Your task to perform on an android device: Search for Mexican restaurants on Maps Image 0: 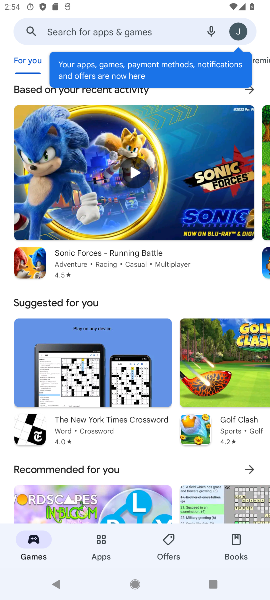
Step 0: press home button
Your task to perform on an android device: Search for Mexican restaurants on Maps Image 1: 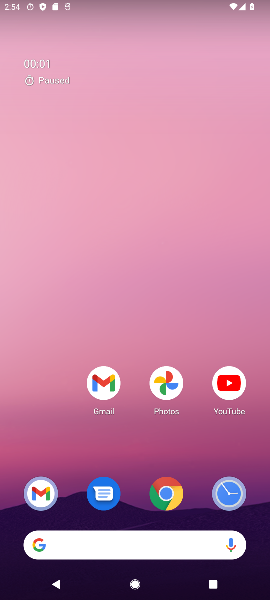
Step 1: drag from (41, 558) to (118, 0)
Your task to perform on an android device: Search for Mexican restaurants on Maps Image 2: 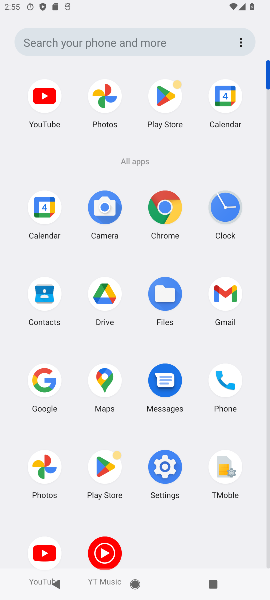
Step 2: click (101, 374)
Your task to perform on an android device: Search for Mexican restaurants on Maps Image 3: 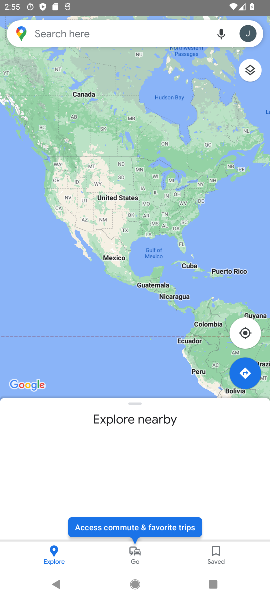
Step 3: click (100, 42)
Your task to perform on an android device: Search for Mexican restaurants on Maps Image 4: 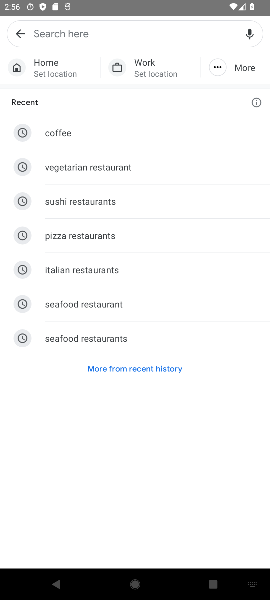
Step 4: type "Mexican restaurants"
Your task to perform on an android device: Search for Mexican restaurants on Maps Image 5: 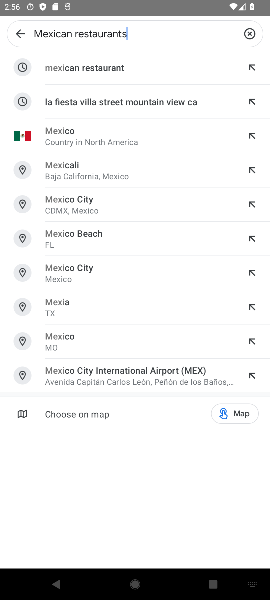
Step 5: type ""
Your task to perform on an android device: Search for Mexican restaurants on Maps Image 6: 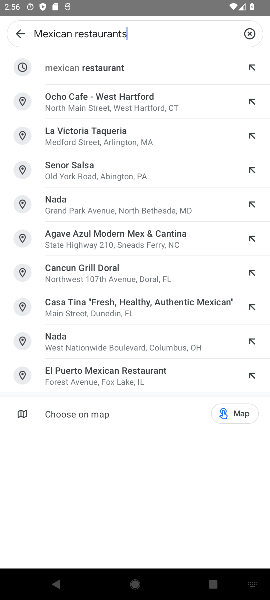
Step 6: type ""
Your task to perform on an android device: Search for Mexican restaurants on Maps Image 7: 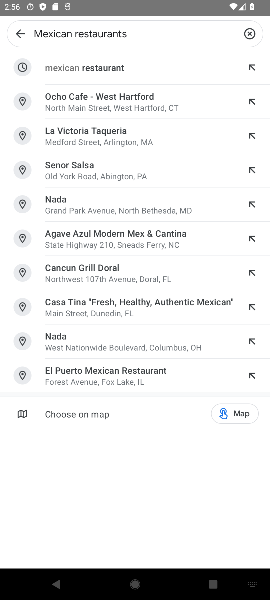
Step 7: type ""
Your task to perform on an android device: Search for Mexican restaurants on Maps Image 8: 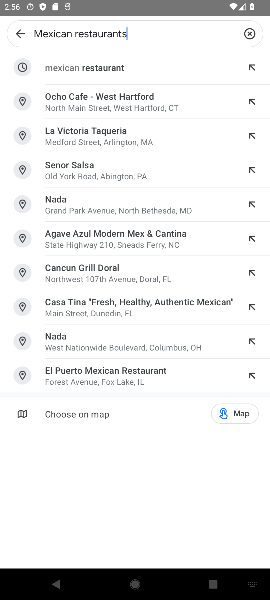
Step 8: click (78, 65)
Your task to perform on an android device: Search for Mexican restaurants on Maps Image 9: 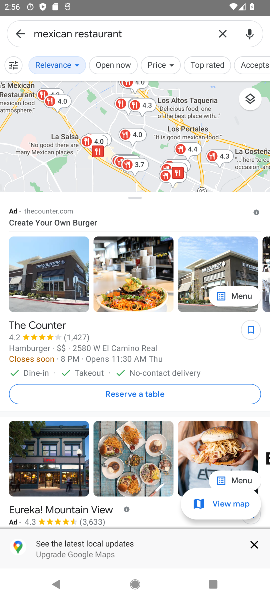
Step 9: task complete